Your task to perform on an android device: Go to eBay Image 0: 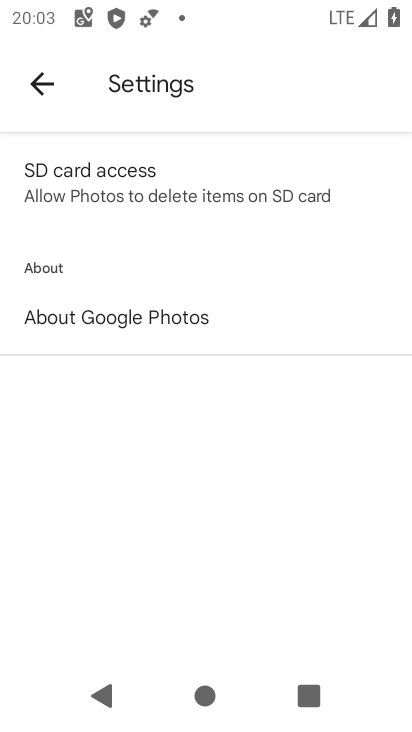
Step 0: press home button
Your task to perform on an android device: Go to eBay Image 1: 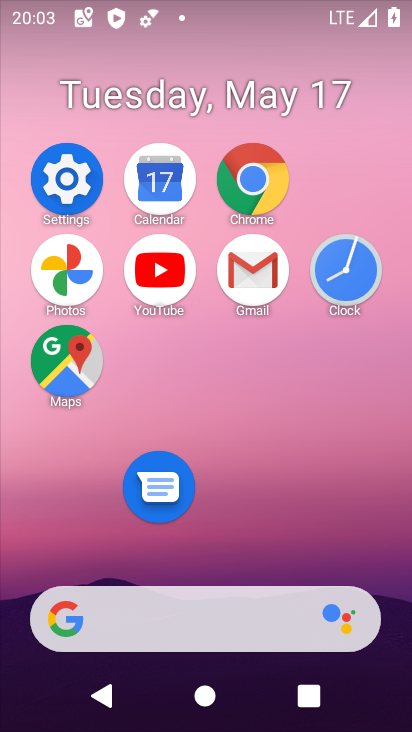
Step 1: click (252, 196)
Your task to perform on an android device: Go to eBay Image 2: 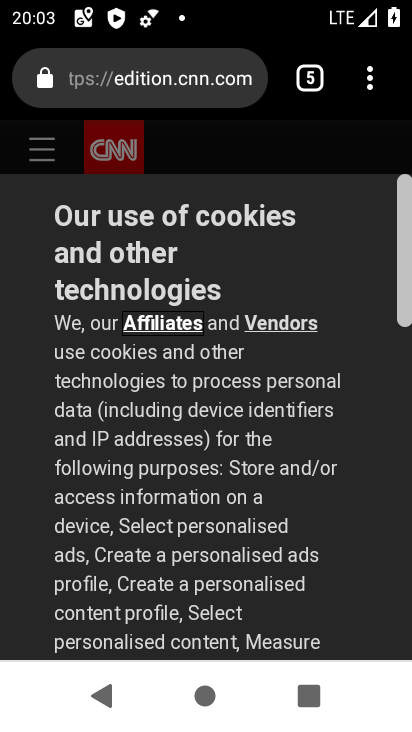
Step 2: click (311, 57)
Your task to perform on an android device: Go to eBay Image 3: 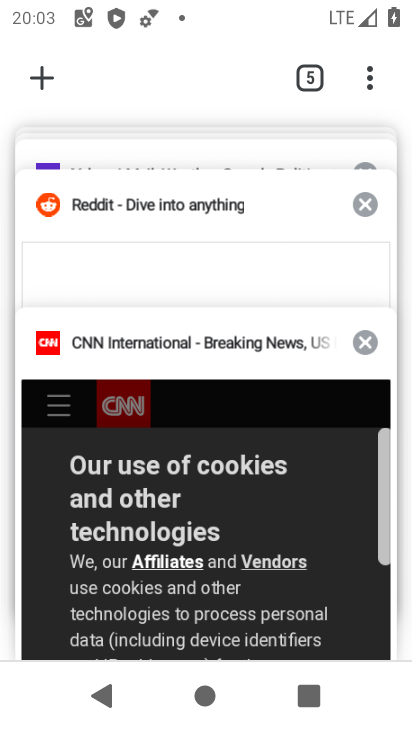
Step 3: drag from (194, 159) to (187, 494)
Your task to perform on an android device: Go to eBay Image 4: 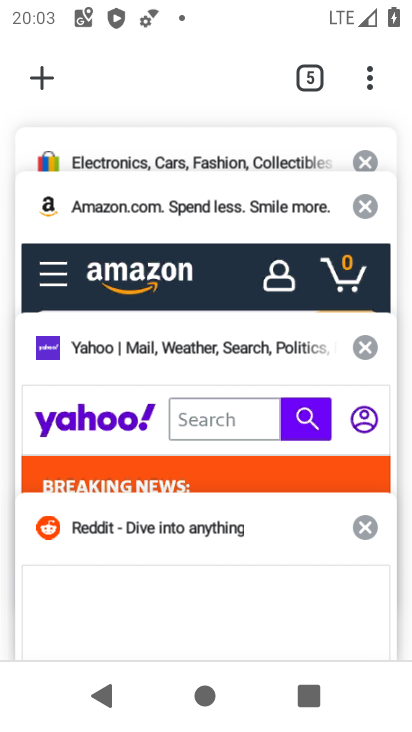
Step 4: click (108, 138)
Your task to perform on an android device: Go to eBay Image 5: 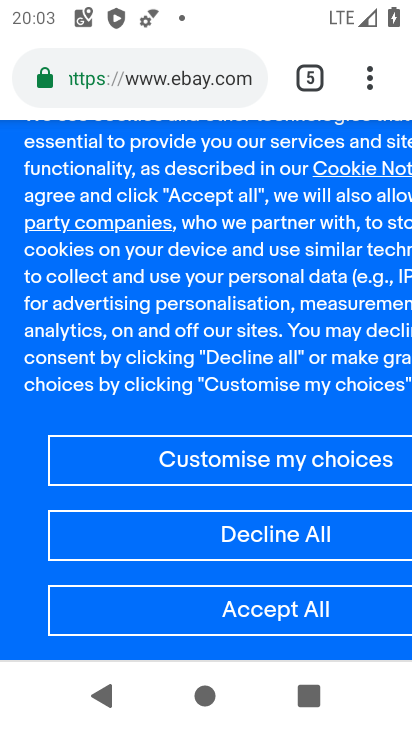
Step 5: task complete